Your task to perform on an android device: turn off sleep mode Image 0: 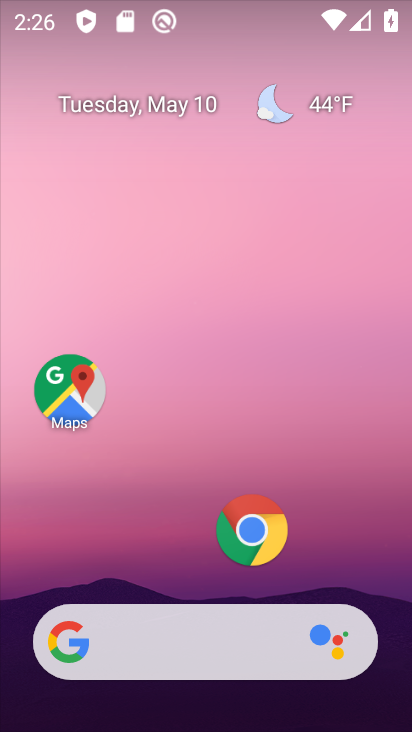
Step 0: press home button
Your task to perform on an android device: turn off sleep mode Image 1: 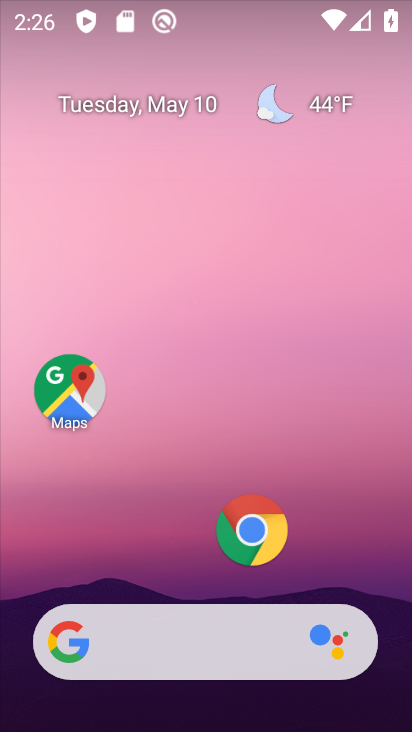
Step 1: drag from (193, 574) to (244, 166)
Your task to perform on an android device: turn off sleep mode Image 2: 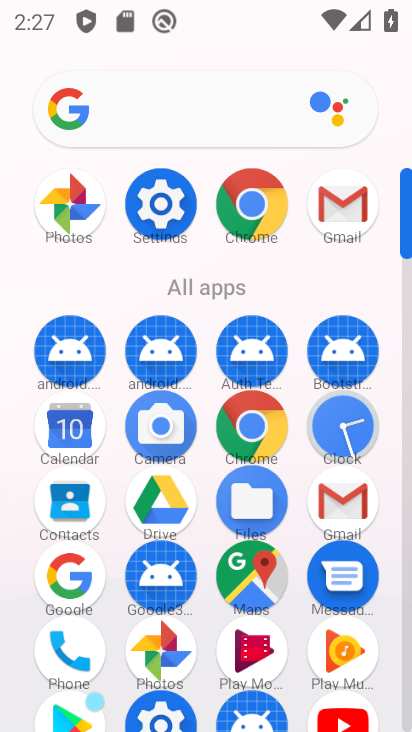
Step 2: click (161, 210)
Your task to perform on an android device: turn off sleep mode Image 3: 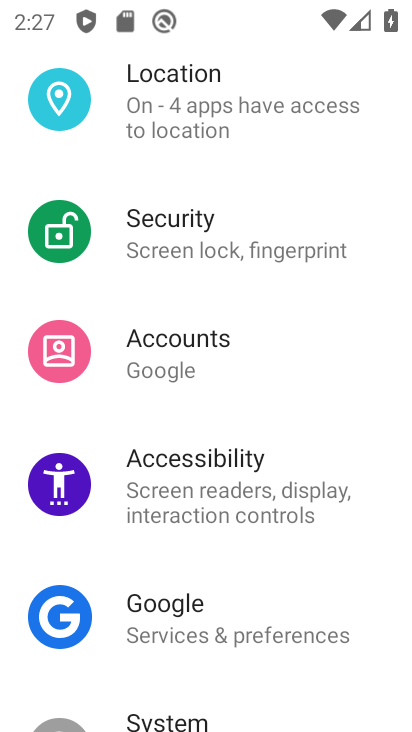
Step 3: drag from (178, 578) to (199, 430)
Your task to perform on an android device: turn off sleep mode Image 4: 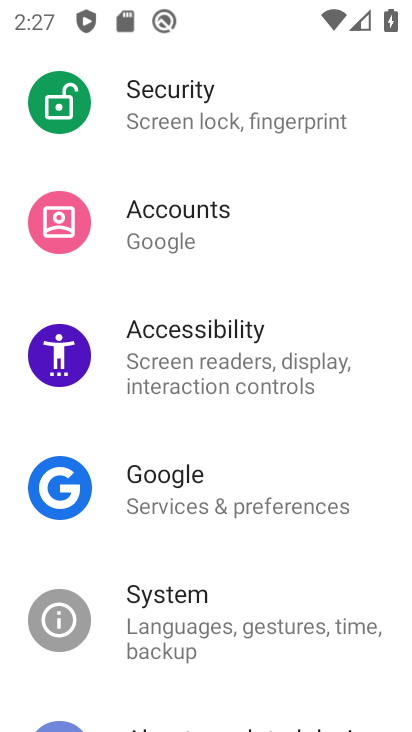
Step 4: drag from (229, 176) to (234, 80)
Your task to perform on an android device: turn off sleep mode Image 5: 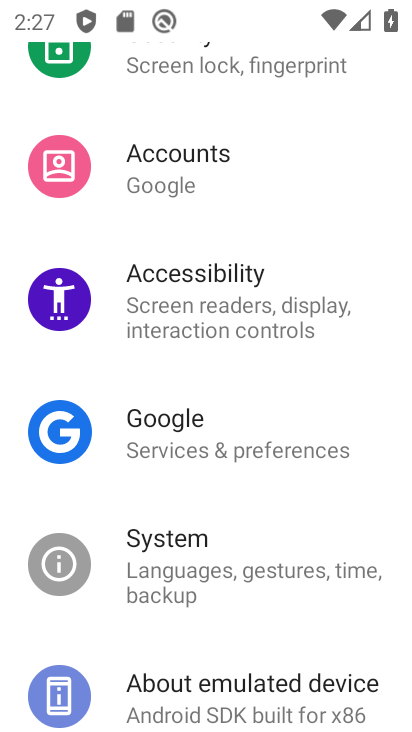
Step 5: drag from (234, 153) to (281, 731)
Your task to perform on an android device: turn off sleep mode Image 6: 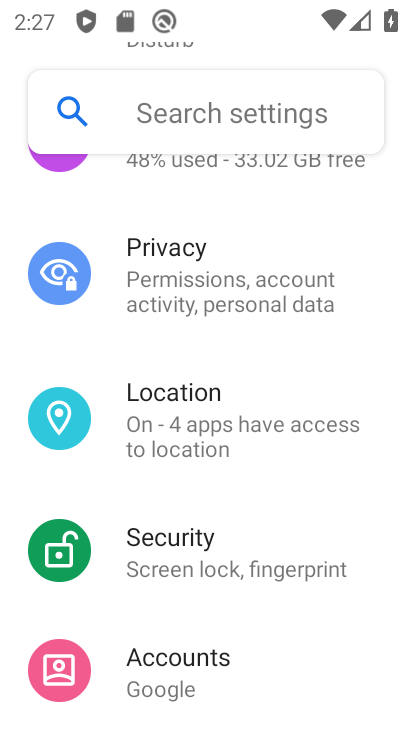
Step 6: drag from (235, 216) to (250, 731)
Your task to perform on an android device: turn off sleep mode Image 7: 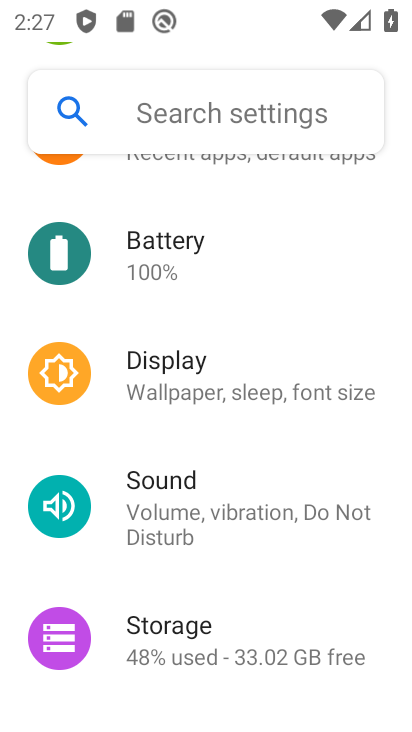
Step 7: click (196, 382)
Your task to perform on an android device: turn off sleep mode Image 8: 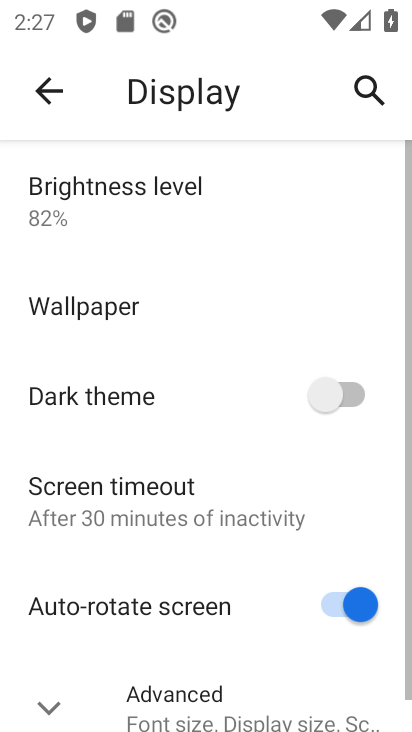
Step 8: task complete